Your task to perform on an android device: Check the settings for the Google Play Music app Image 0: 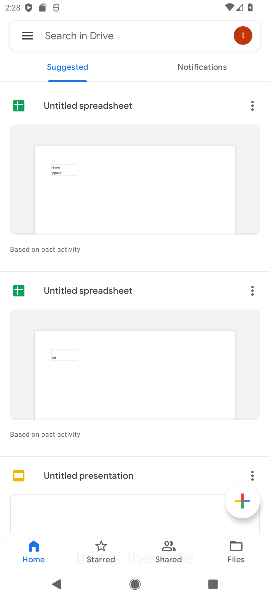
Step 0: press home button
Your task to perform on an android device: Check the settings for the Google Play Music app Image 1: 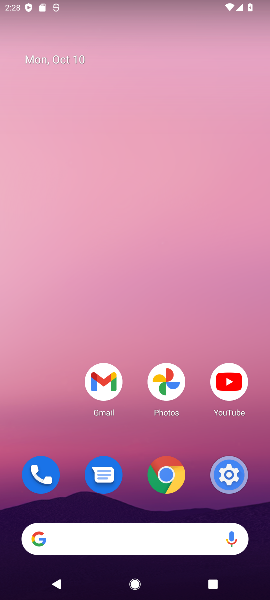
Step 1: task complete